Your task to perform on an android device: Open the phone app and click the voicemail tab. Image 0: 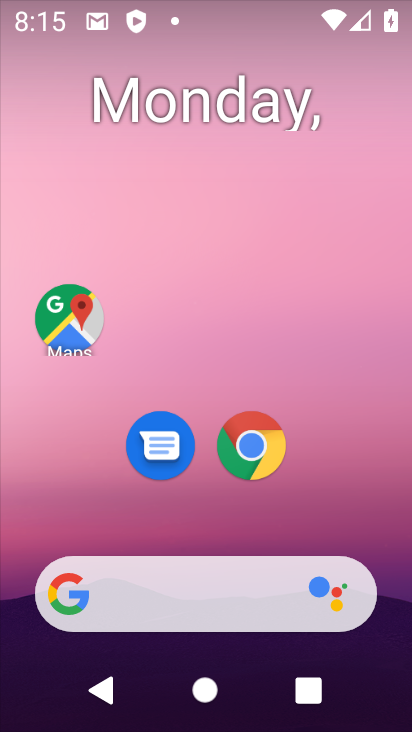
Step 0: drag from (158, 674) to (171, 103)
Your task to perform on an android device: Open the phone app and click the voicemail tab. Image 1: 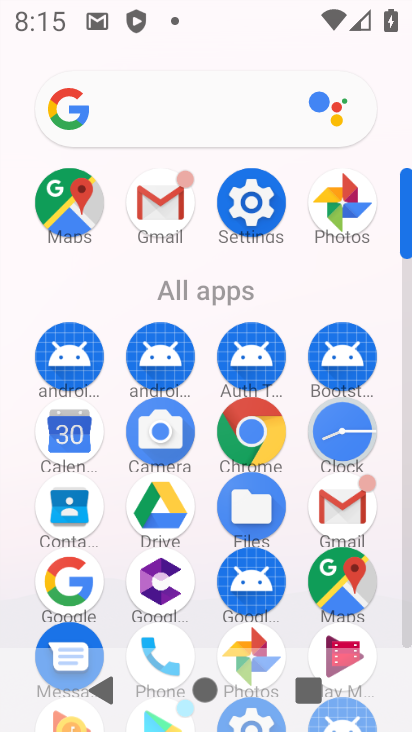
Step 1: click (160, 646)
Your task to perform on an android device: Open the phone app and click the voicemail tab. Image 2: 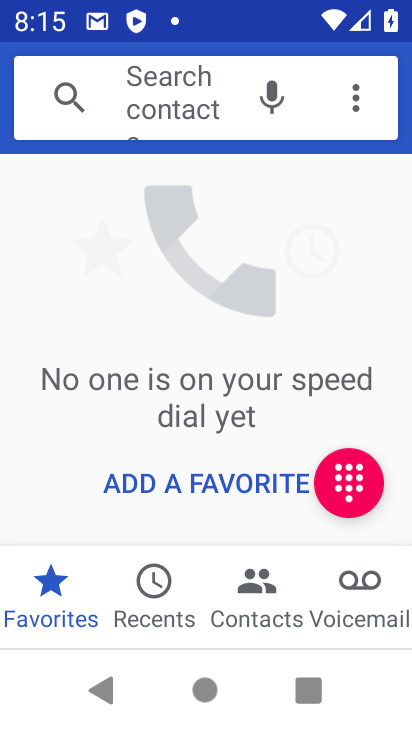
Step 2: click (364, 626)
Your task to perform on an android device: Open the phone app and click the voicemail tab. Image 3: 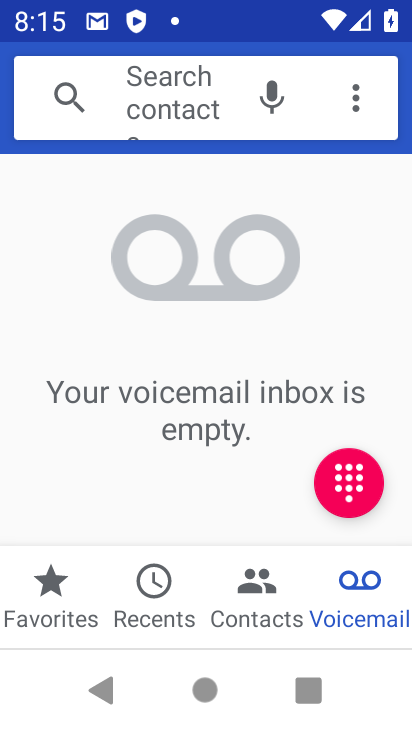
Step 3: task complete